Your task to perform on an android device: Add "macbook pro 15 inch" to the cart on costco, then select checkout. Image 0: 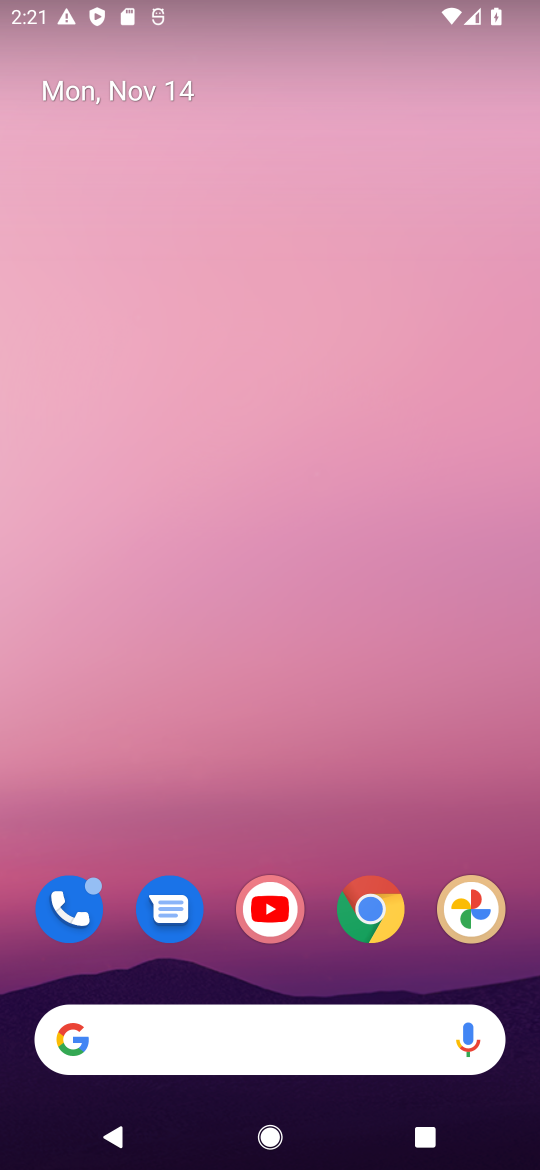
Step 0: drag from (310, 806) to (358, 1)
Your task to perform on an android device: Add "macbook pro 15 inch" to the cart on costco, then select checkout. Image 1: 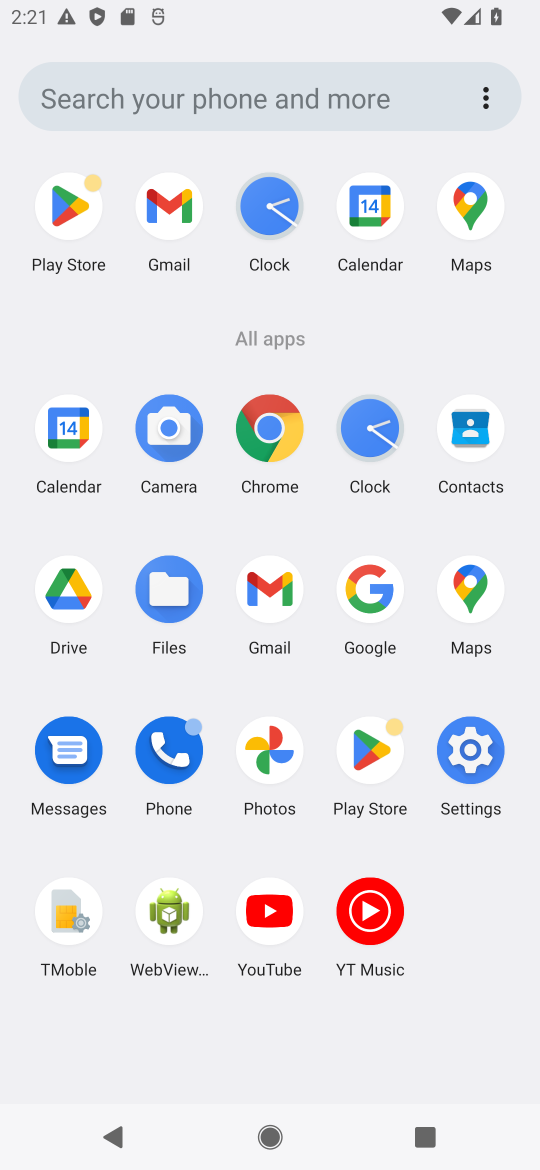
Step 1: click (270, 428)
Your task to perform on an android device: Add "macbook pro 15 inch" to the cart on costco, then select checkout. Image 2: 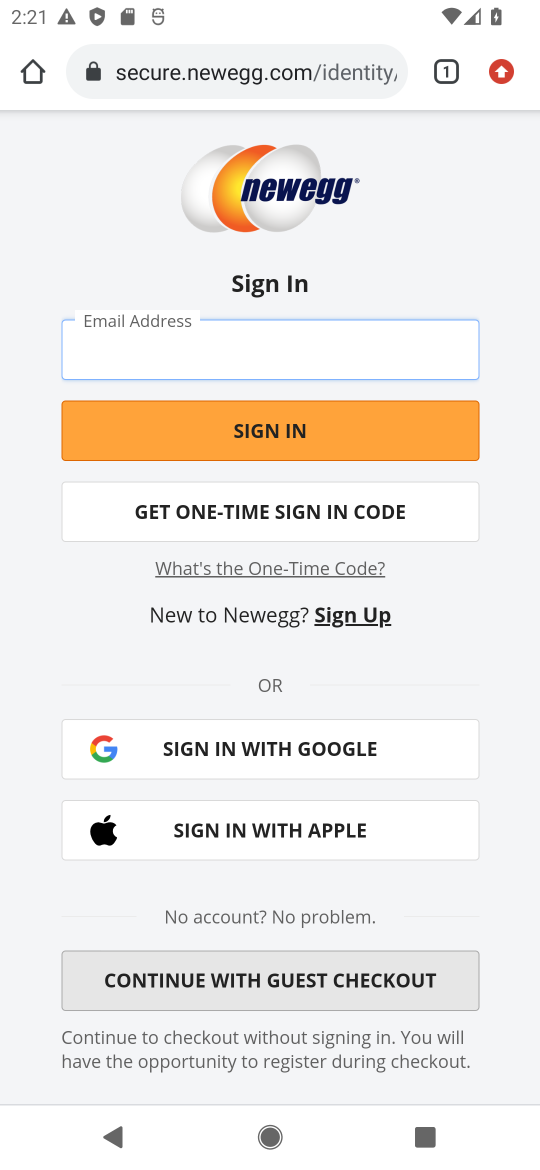
Step 2: click (219, 70)
Your task to perform on an android device: Add "macbook pro 15 inch" to the cart on costco, then select checkout. Image 3: 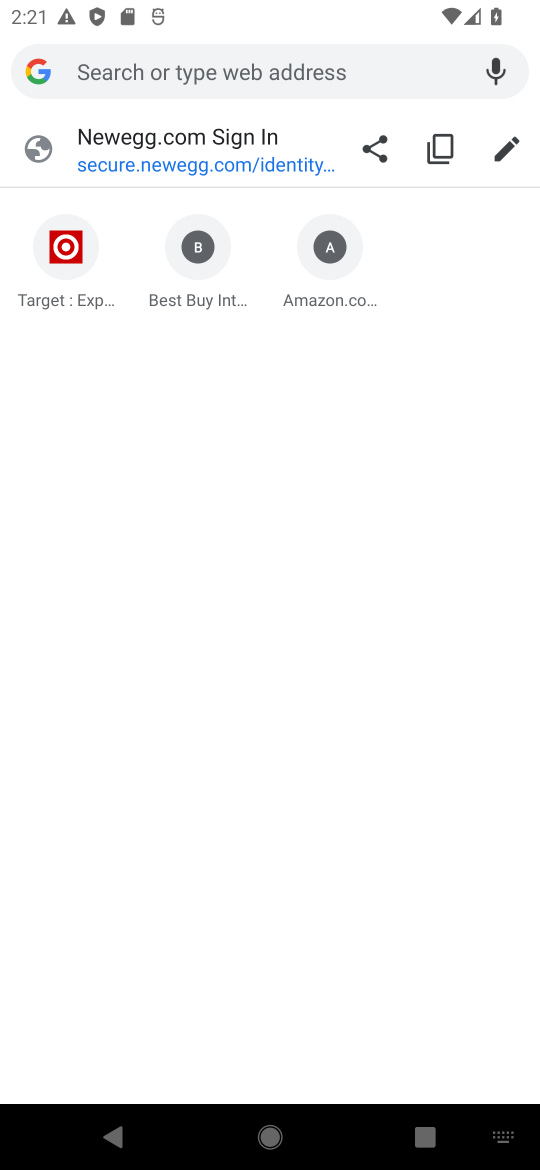
Step 3: type "costco.com"
Your task to perform on an android device: Add "macbook pro 15 inch" to the cart on costco, then select checkout. Image 4: 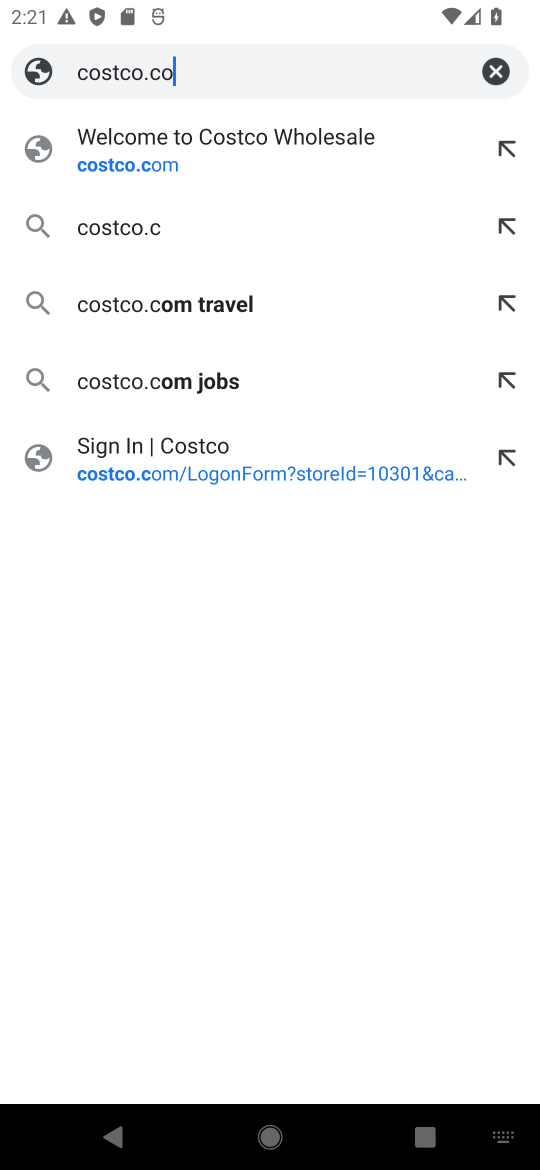
Step 4: press enter
Your task to perform on an android device: Add "macbook pro 15 inch" to the cart on costco, then select checkout. Image 5: 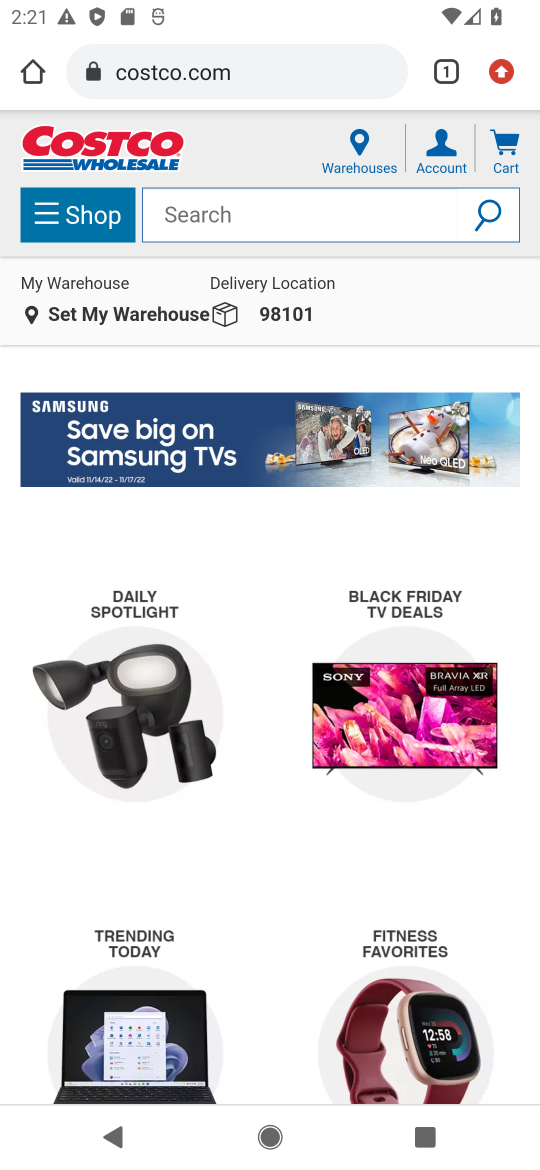
Step 5: click (310, 222)
Your task to perform on an android device: Add "macbook pro 15 inch" to the cart on costco, then select checkout. Image 6: 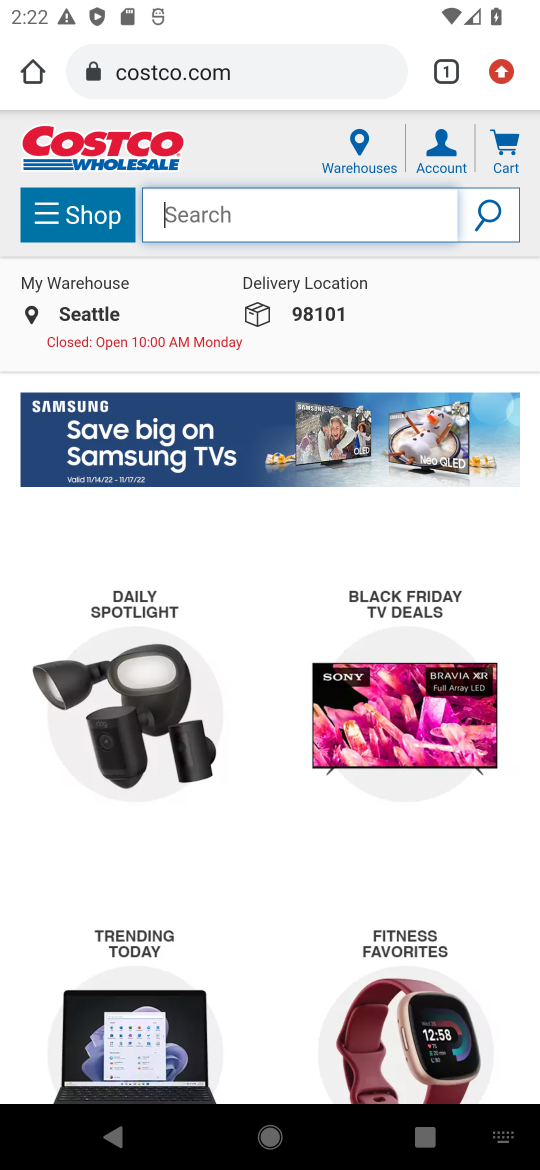
Step 6: type "macbook pro 15 inch"
Your task to perform on an android device: Add "macbook pro 15 inch" to the cart on costco, then select checkout. Image 7: 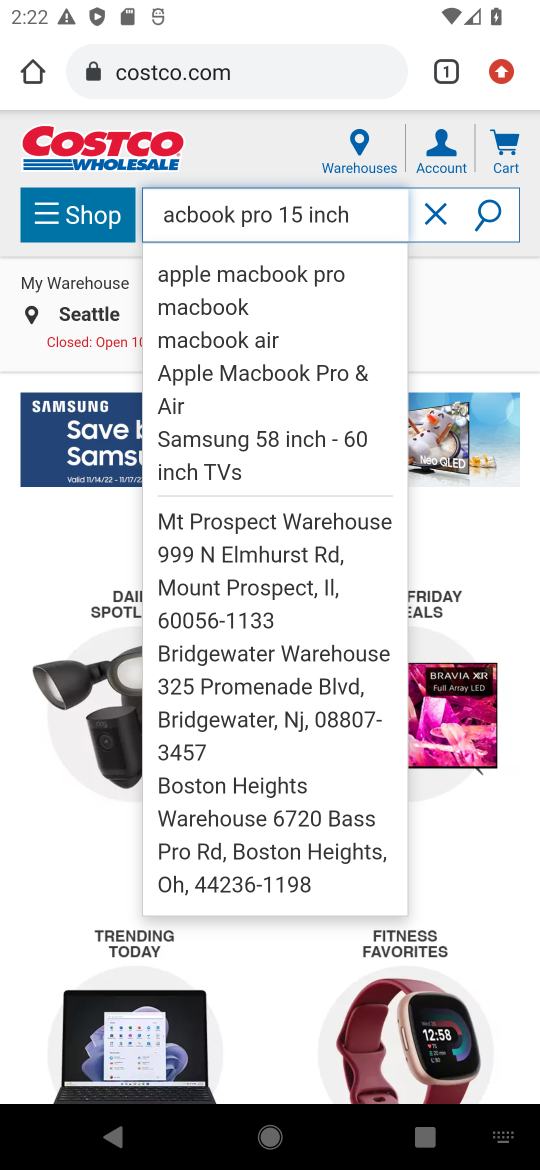
Step 7: click (166, 203)
Your task to perform on an android device: Add "macbook pro 15 inch" to the cart on costco, then select checkout. Image 8: 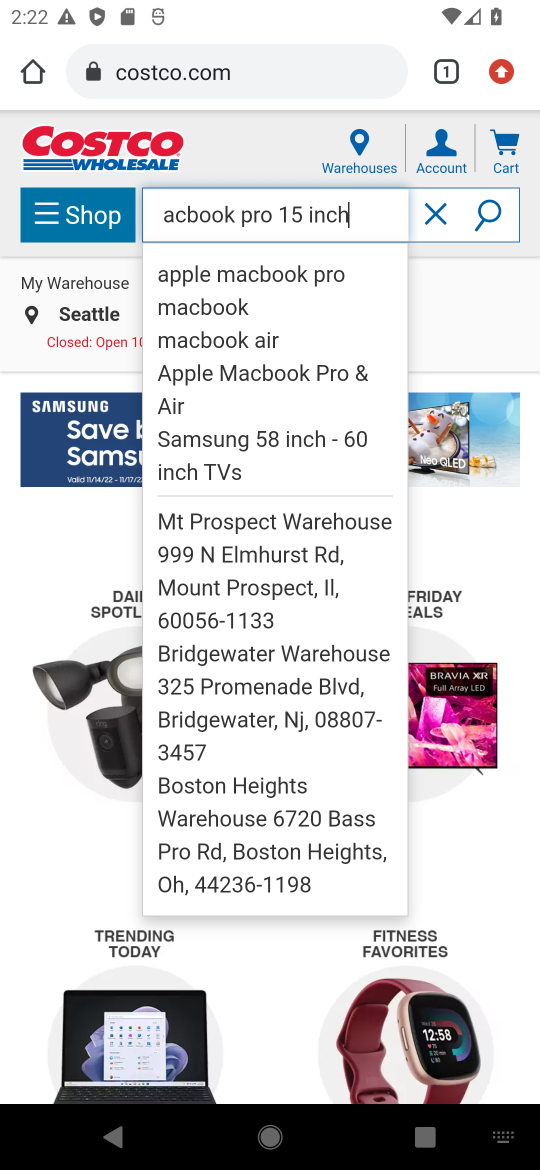
Step 8: click (173, 212)
Your task to perform on an android device: Add "macbook pro 15 inch" to the cart on costco, then select checkout. Image 9: 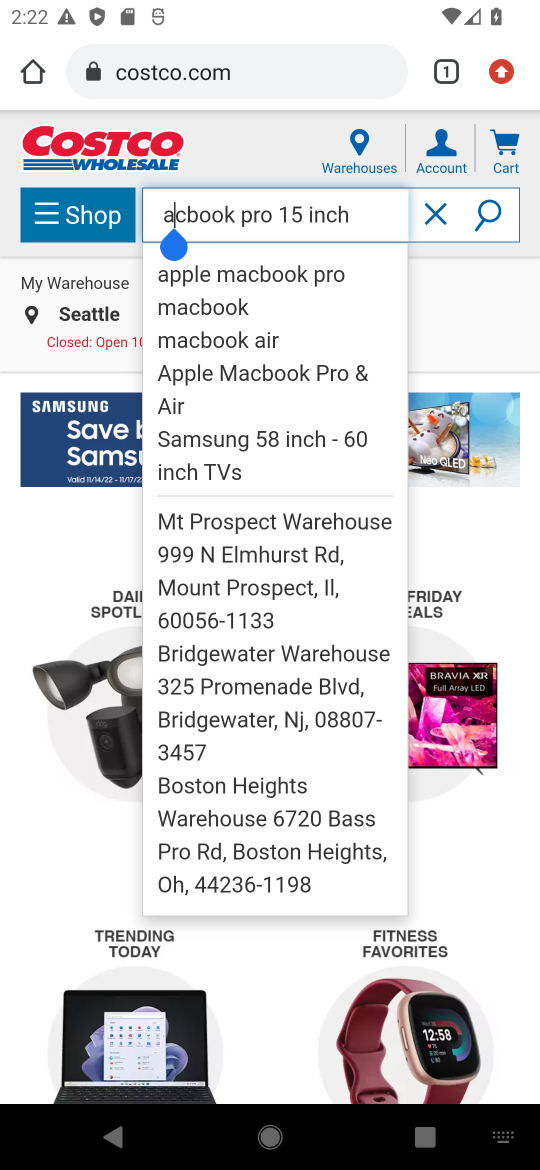
Step 9: click (170, 215)
Your task to perform on an android device: Add "macbook pro 15 inch" to the cart on costco, then select checkout. Image 10: 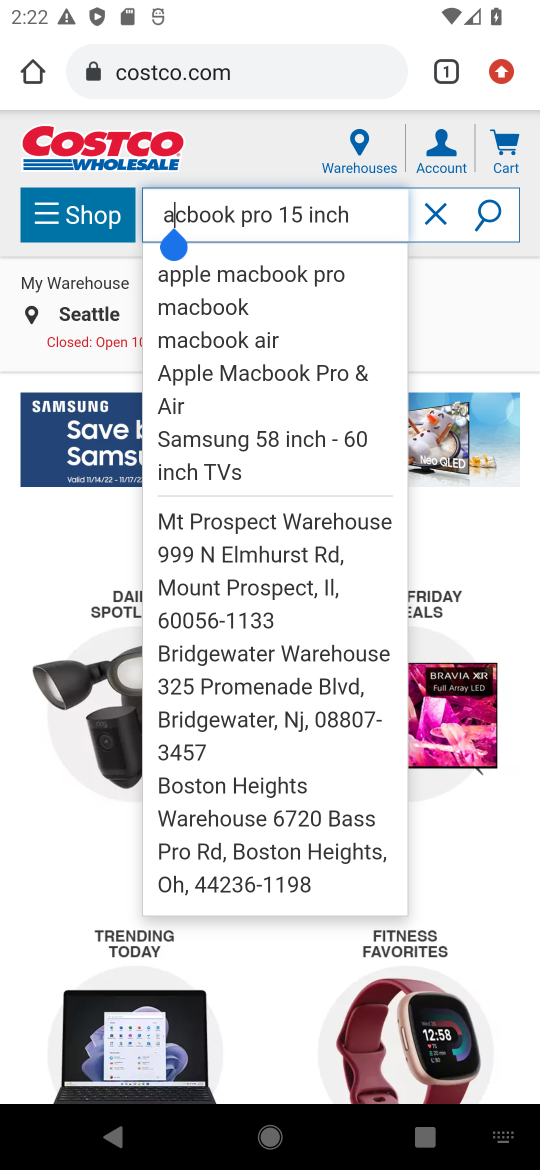
Step 10: click (163, 214)
Your task to perform on an android device: Add "macbook pro 15 inch" to the cart on costco, then select checkout. Image 11: 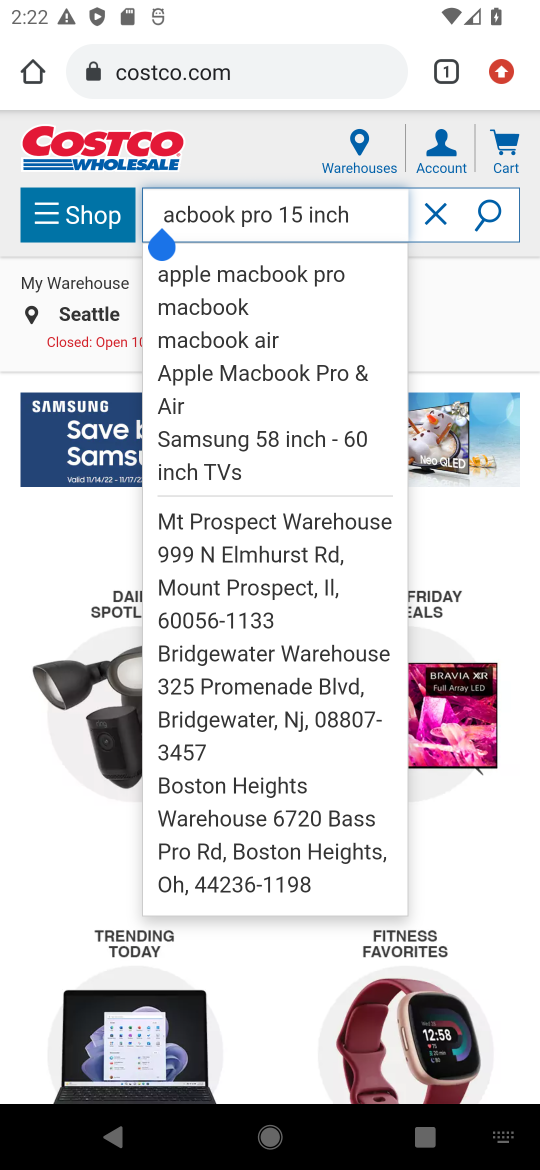
Step 11: type "m"
Your task to perform on an android device: Add "macbook pro 15 inch" to the cart on costco, then select checkout. Image 12: 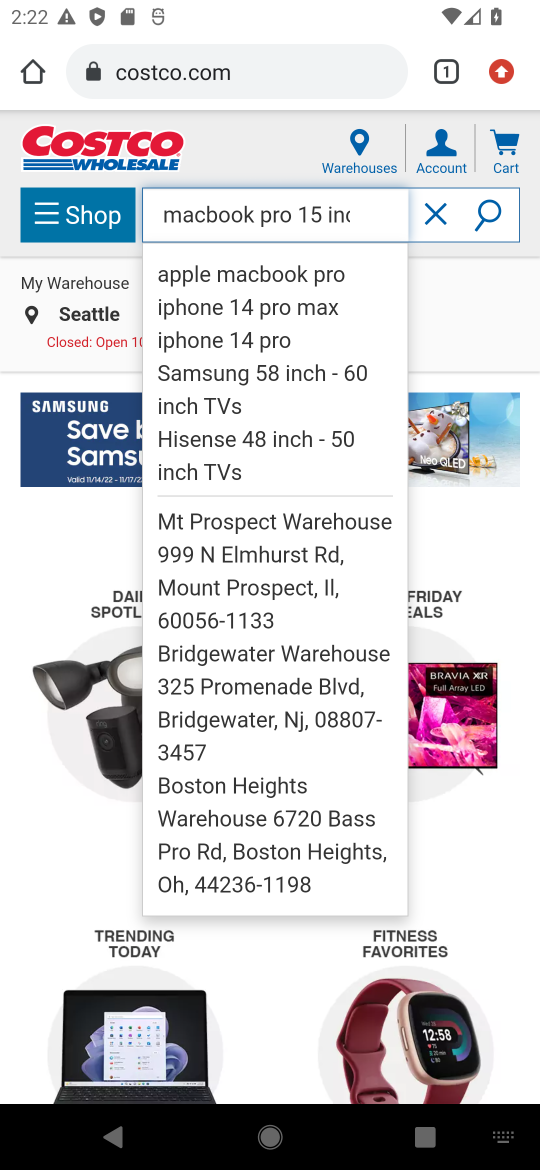
Step 12: press enter
Your task to perform on an android device: Add "macbook pro 15 inch" to the cart on costco, then select checkout. Image 13: 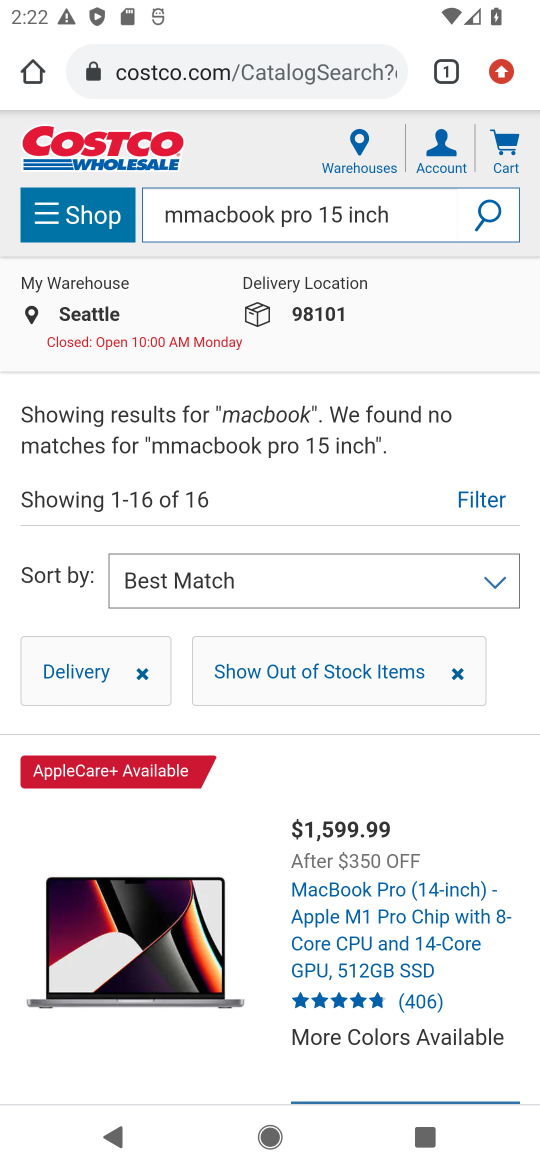
Step 13: task complete